Your task to perform on an android device: toggle notifications settings in the gmail app Image 0: 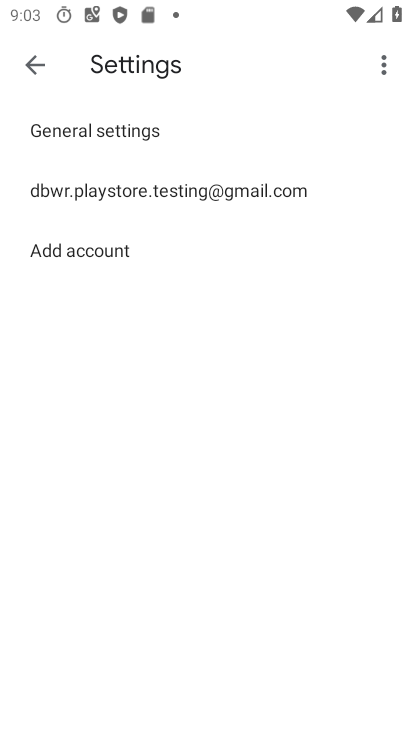
Step 0: click (239, 181)
Your task to perform on an android device: toggle notifications settings in the gmail app Image 1: 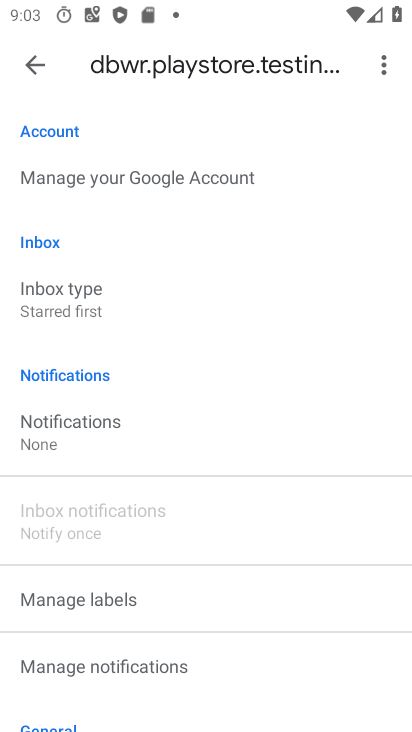
Step 1: click (75, 444)
Your task to perform on an android device: toggle notifications settings in the gmail app Image 2: 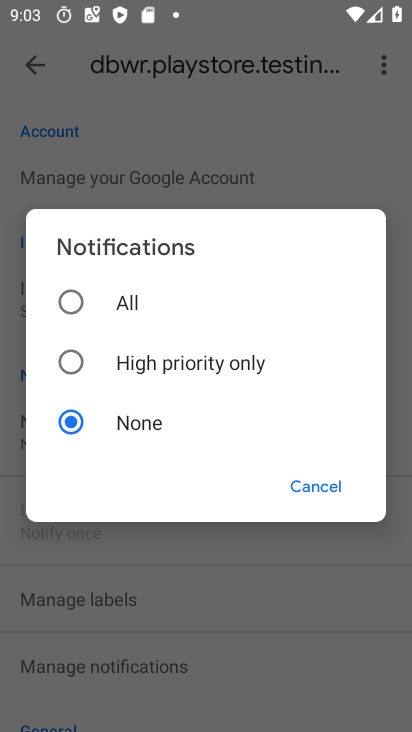
Step 2: click (87, 360)
Your task to perform on an android device: toggle notifications settings in the gmail app Image 3: 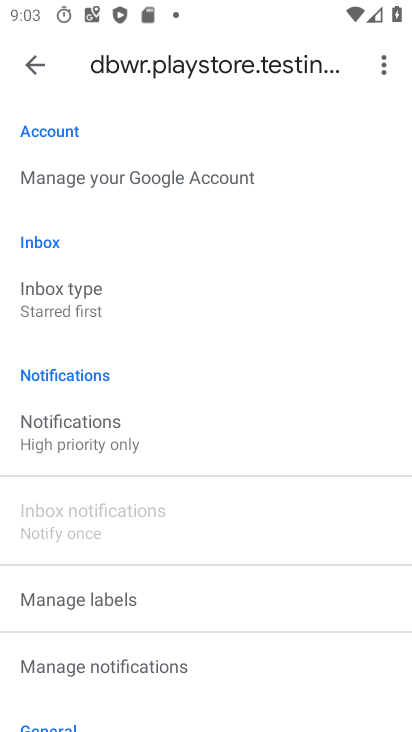
Step 3: task complete